Your task to perform on an android device: check storage Image 0: 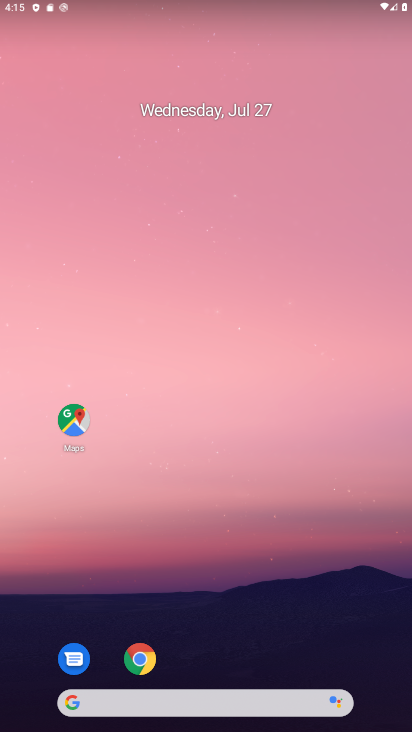
Step 0: drag from (313, 498) to (295, 0)
Your task to perform on an android device: check storage Image 1: 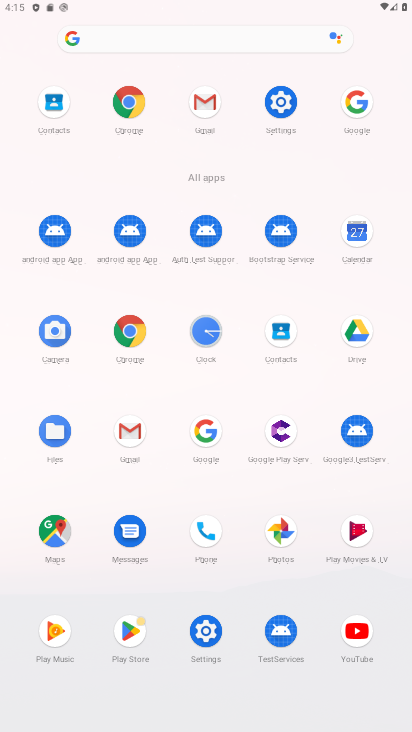
Step 1: click (283, 105)
Your task to perform on an android device: check storage Image 2: 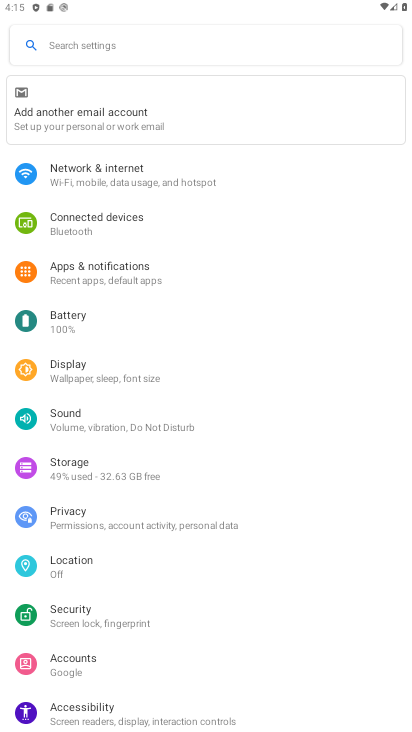
Step 2: click (23, 464)
Your task to perform on an android device: check storage Image 3: 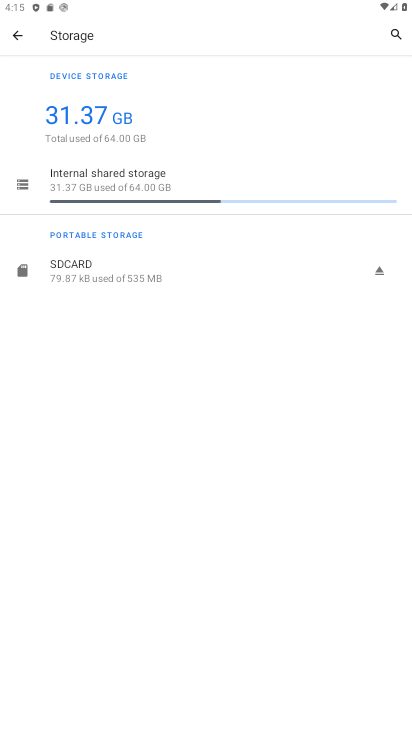
Step 3: task complete